Your task to perform on an android device: Open calendar and show me the fourth week of next month Image 0: 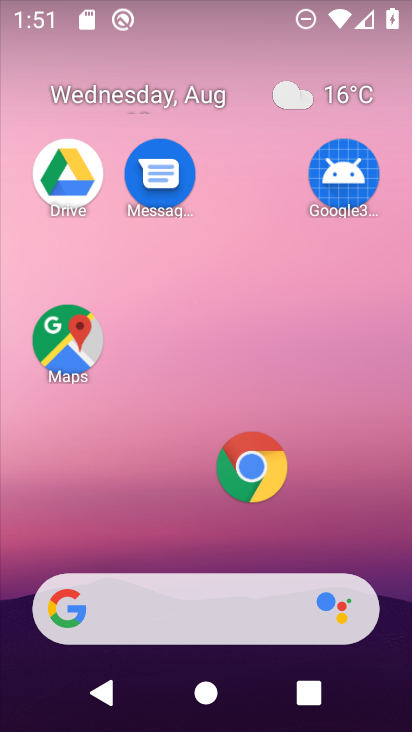
Step 0: click (196, 84)
Your task to perform on an android device: Open calendar and show me the fourth week of next month Image 1: 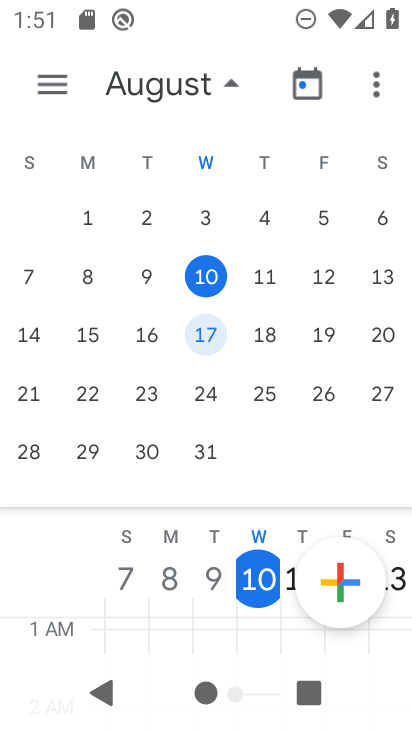
Step 1: click (202, 399)
Your task to perform on an android device: Open calendar and show me the fourth week of next month Image 2: 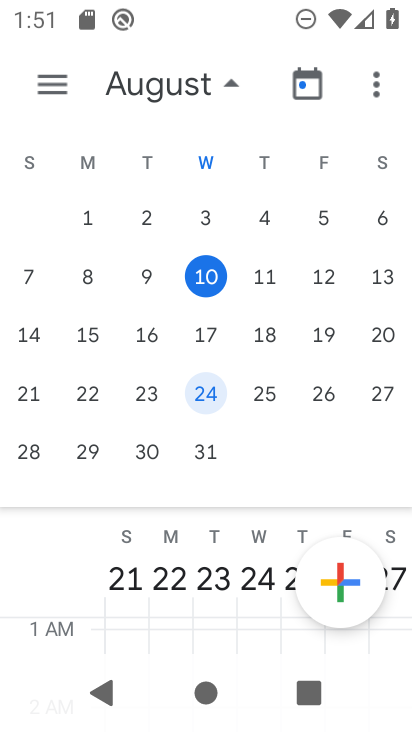
Step 2: task complete